Your task to perform on an android device: Open the calendar app, open the side menu, and click the "Day" option Image 0: 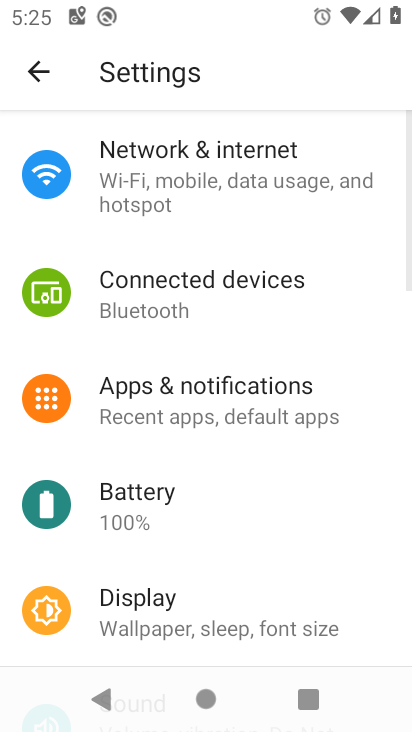
Step 0: press home button
Your task to perform on an android device: Open the calendar app, open the side menu, and click the "Day" option Image 1: 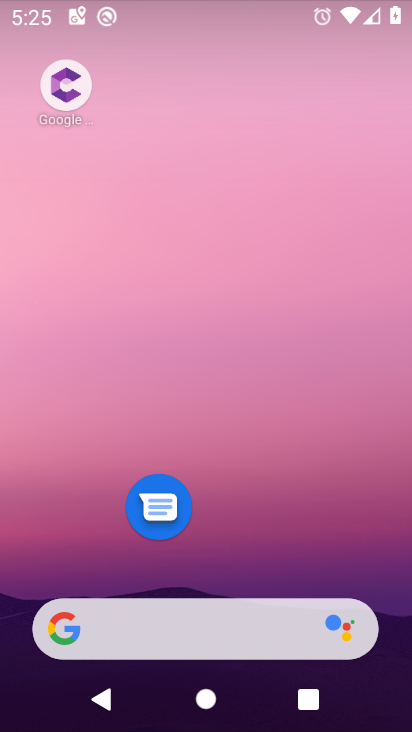
Step 1: drag from (293, 581) to (195, 112)
Your task to perform on an android device: Open the calendar app, open the side menu, and click the "Day" option Image 2: 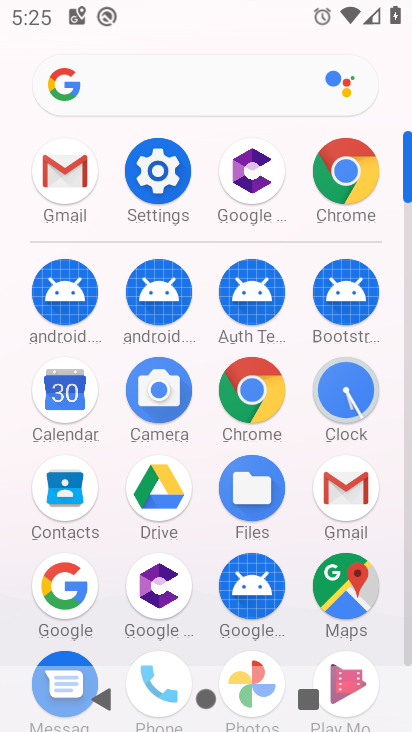
Step 2: click (57, 419)
Your task to perform on an android device: Open the calendar app, open the side menu, and click the "Day" option Image 3: 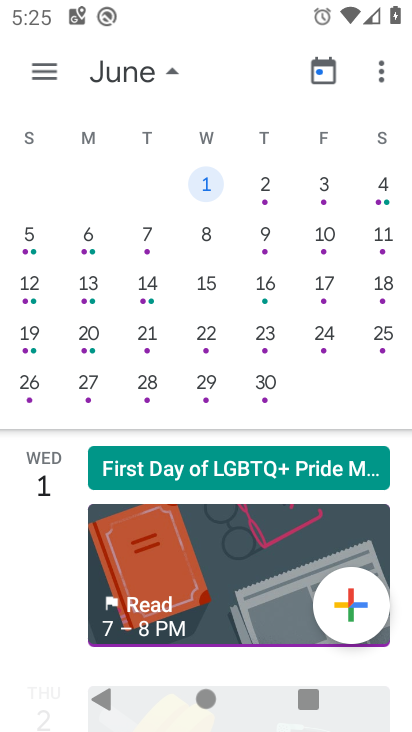
Step 3: click (53, 60)
Your task to perform on an android device: Open the calendar app, open the side menu, and click the "Day" option Image 4: 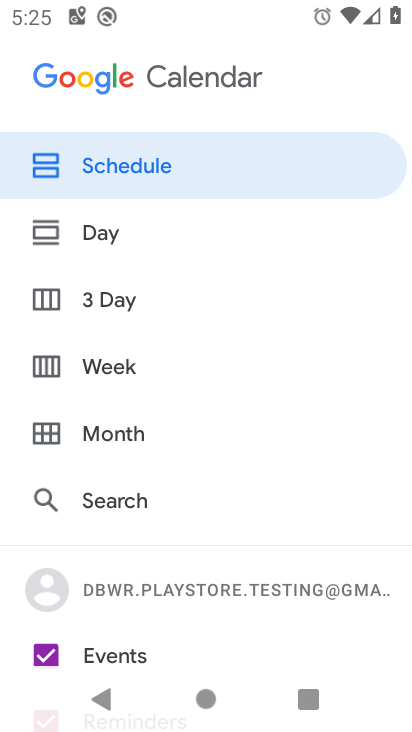
Step 4: drag from (405, 171) to (8, 289)
Your task to perform on an android device: Open the calendar app, open the side menu, and click the "Day" option Image 5: 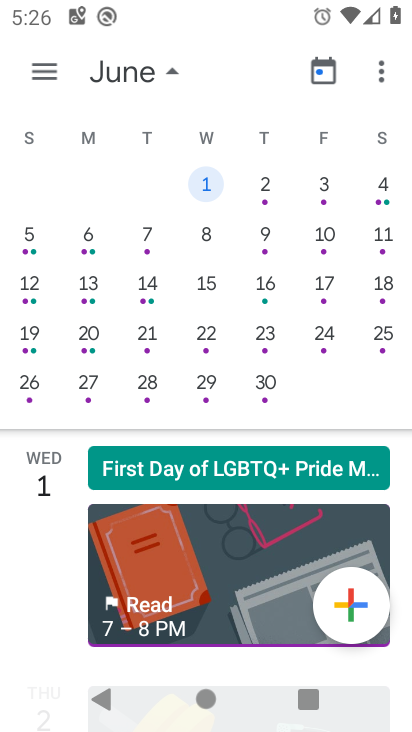
Step 5: drag from (77, 315) to (359, 301)
Your task to perform on an android device: Open the calendar app, open the side menu, and click the "Day" option Image 6: 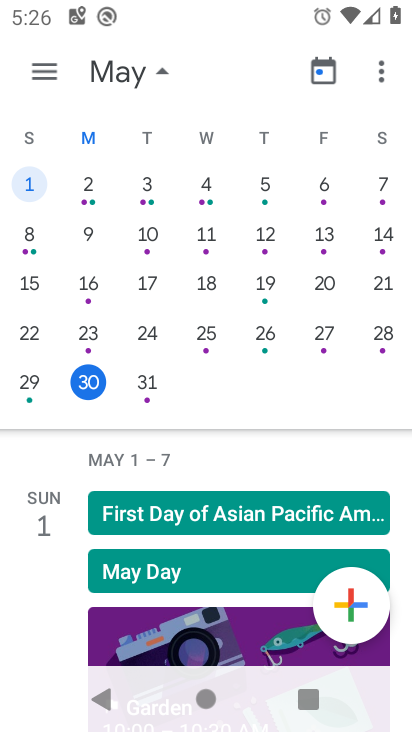
Step 6: click (91, 369)
Your task to perform on an android device: Open the calendar app, open the side menu, and click the "Day" option Image 7: 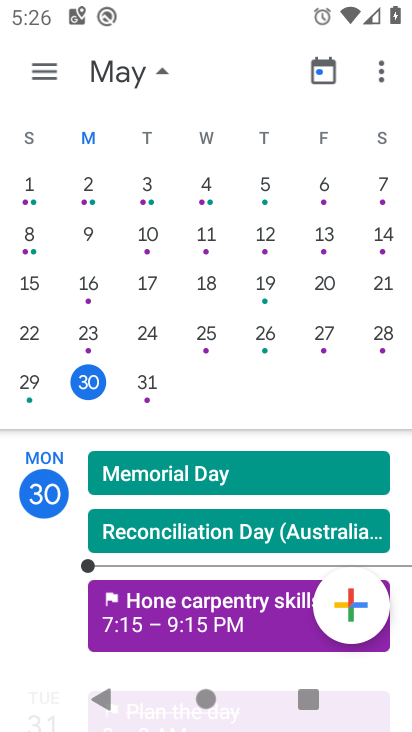
Step 7: click (41, 82)
Your task to perform on an android device: Open the calendar app, open the side menu, and click the "Day" option Image 8: 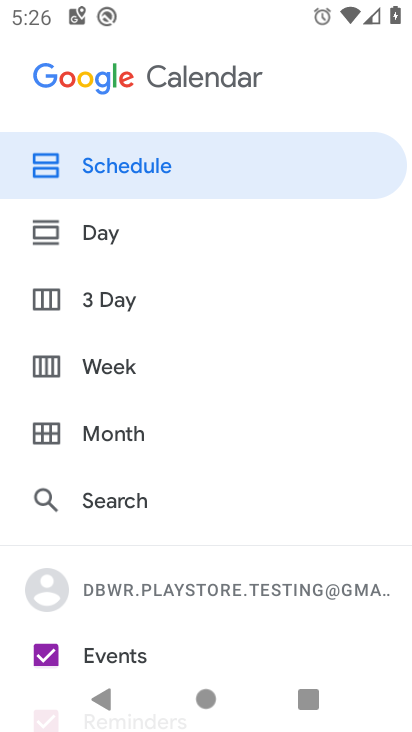
Step 8: click (68, 211)
Your task to perform on an android device: Open the calendar app, open the side menu, and click the "Day" option Image 9: 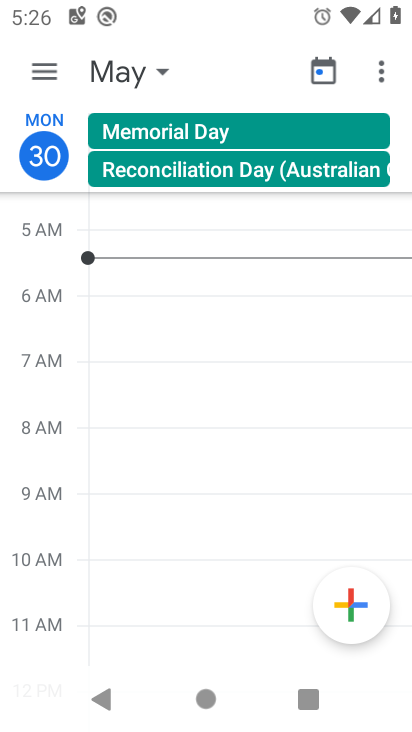
Step 9: task complete